Your task to perform on an android device: open a bookmark in the chrome app Image 0: 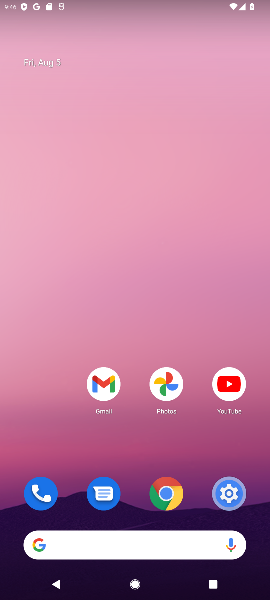
Step 0: press home button
Your task to perform on an android device: open a bookmark in the chrome app Image 1: 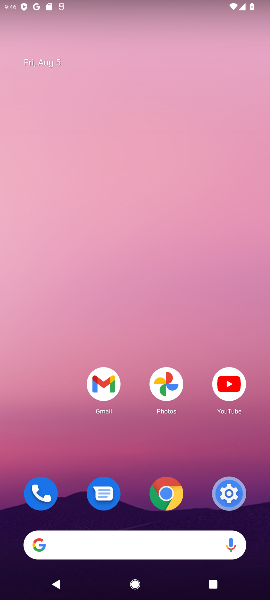
Step 1: press home button
Your task to perform on an android device: open a bookmark in the chrome app Image 2: 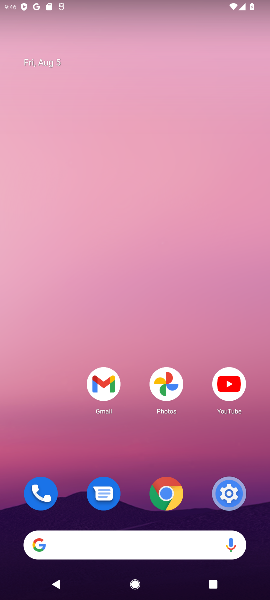
Step 2: drag from (144, 470) to (181, 19)
Your task to perform on an android device: open a bookmark in the chrome app Image 3: 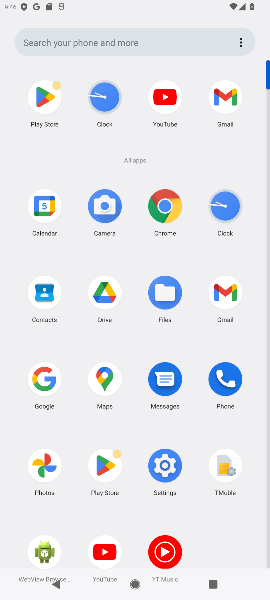
Step 3: click (162, 206)
Your task to perform on an android device: open a bookmark in the chrome app Image 4: 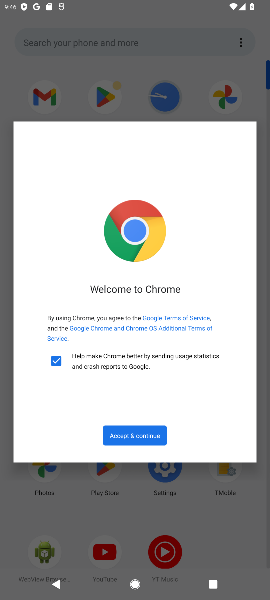
Step 4: click (130, 429)
Your task to perform on an android device: open a bookmark in the chrome app Image 5: 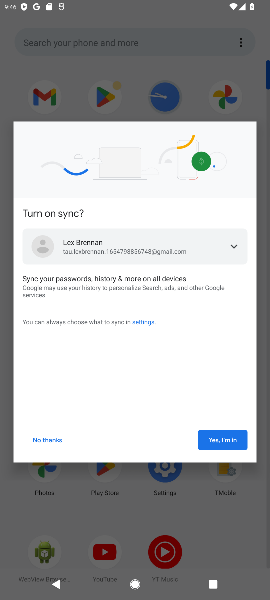
Step 5: click (216, 437)
Your task to perform on an android device: open a bookmark in the chrome app Image 6: 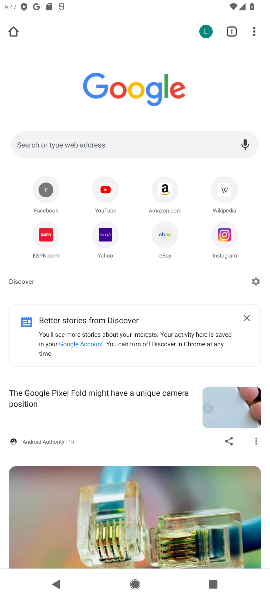
Step 6: click (253, 28)
Your task to perform on an android device: open a bookmark in the chrome app Image 7: 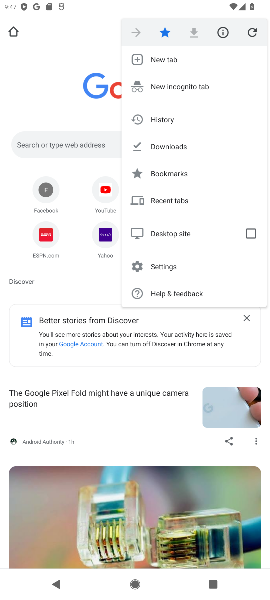
Step 7: click (186, 167)
Your task to perform on an android device: open a bookmark in the chrome app Image 8: 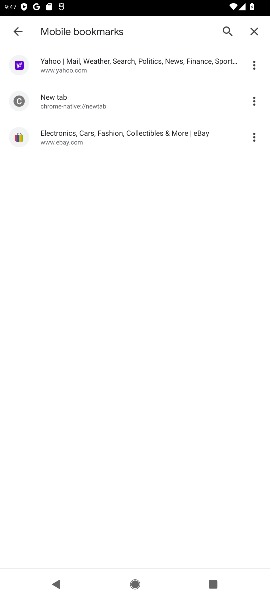
Step 8: click (80, 67)
Your task to perform on an android device: open a bookmark in the chrome app Image 9: 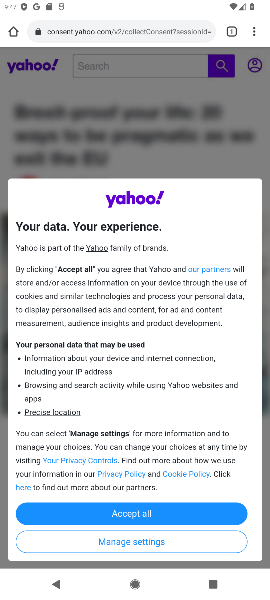
Step 9: click (143, 511)
Your task to perform on an android device: open a bookmark in the chrome app Image 10: 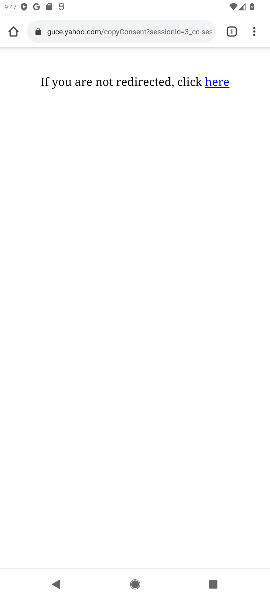
Step 10: task complete